Your task to perform on an android device: Open the map Image 0: 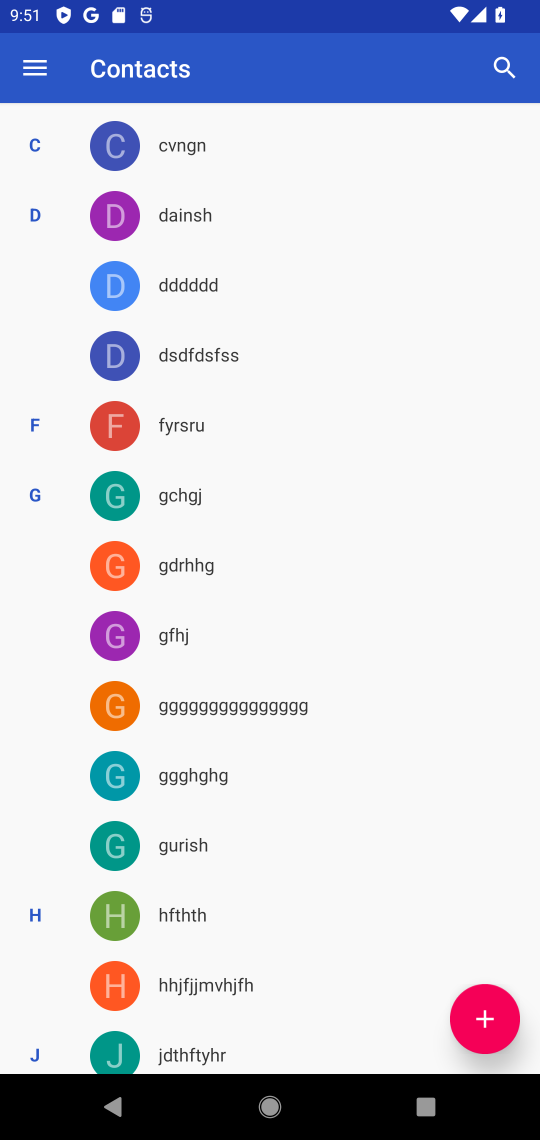
Step 0: press home button
Your task to perform on an android device: Open the map Image 1: 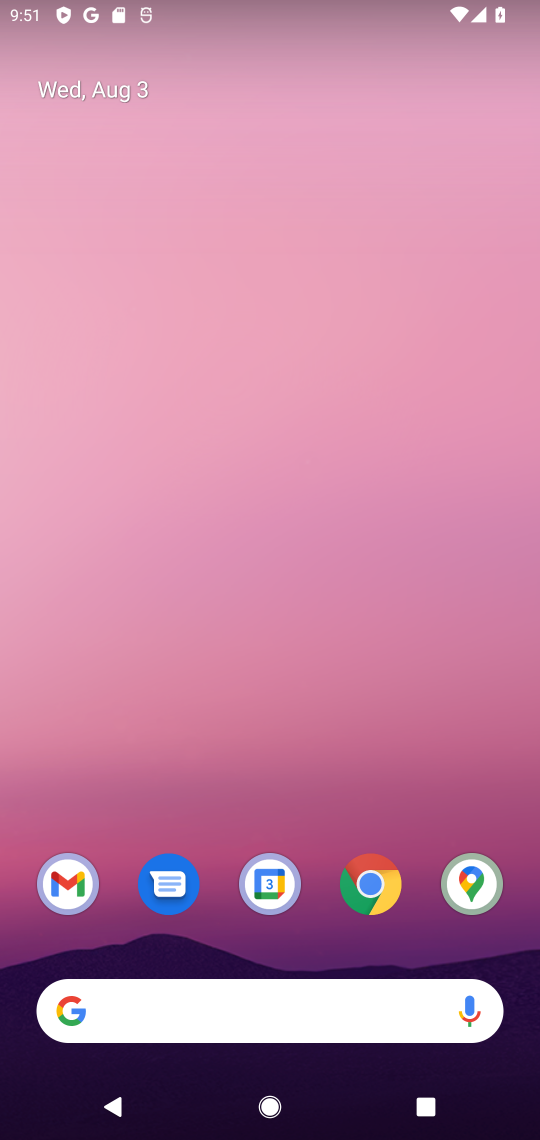
Step 1: drag from (349, 949) to (445, 105)
Your task to perform on an android device: Open the map Image 2: 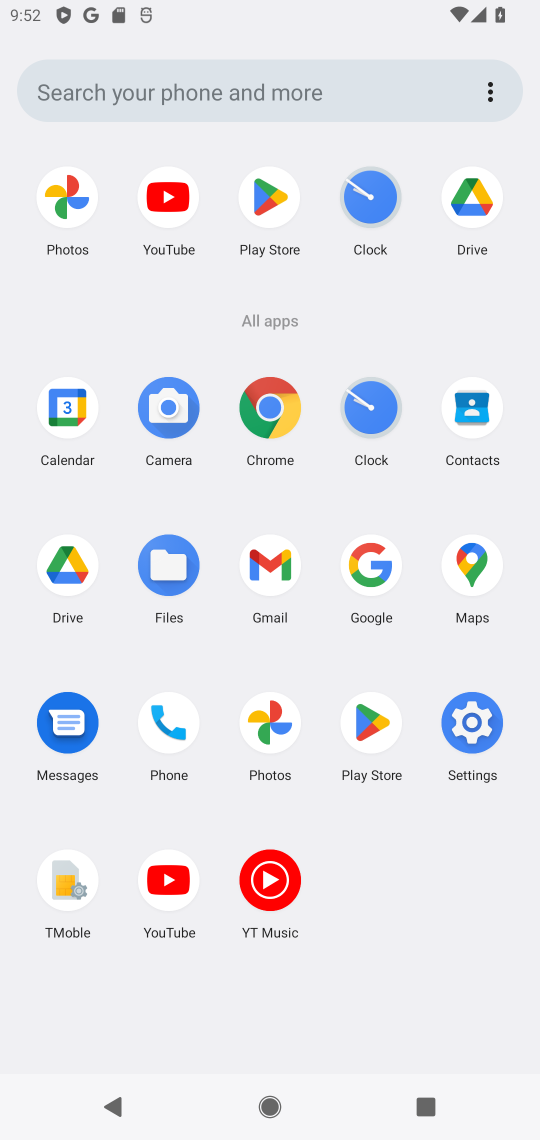
Step 2: click (477, 553)
Your task to perform on an android device: Open the map Image 3: 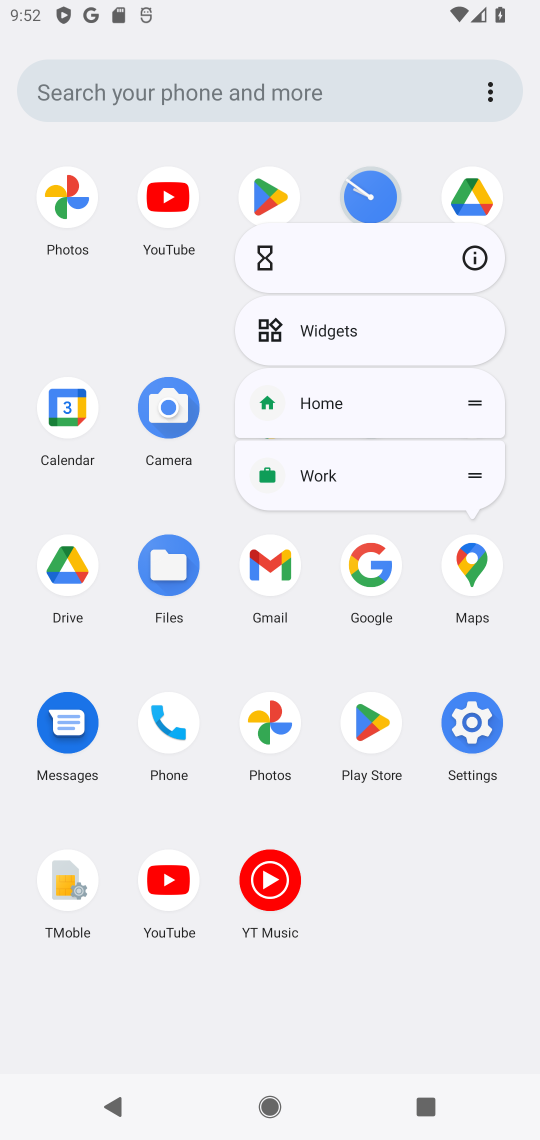
Step 3: click (476, 564)
Your task to perform on an android device: Open the map Image 4: 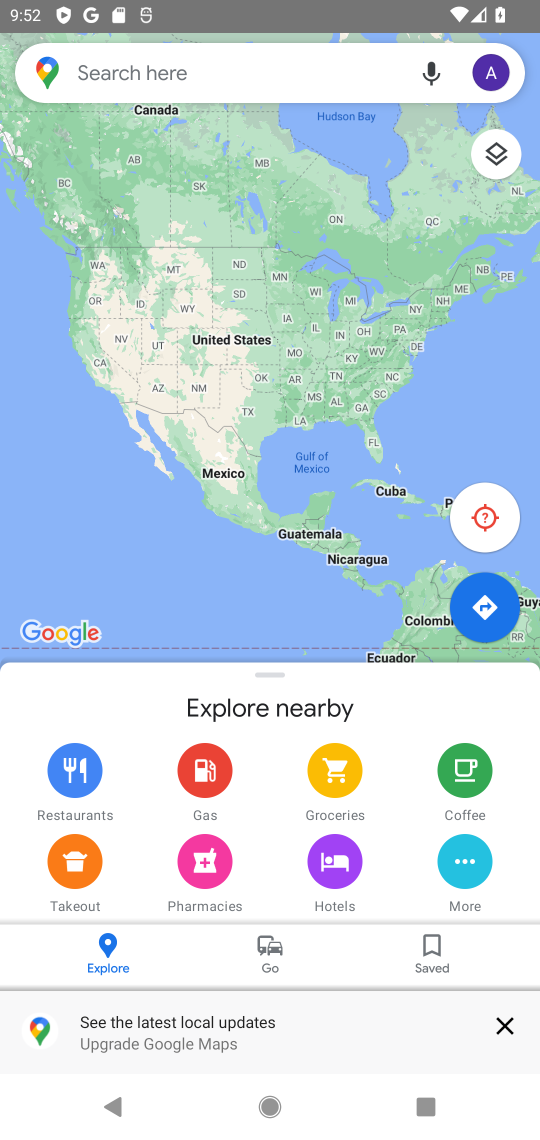
Step 4: task complete